Your task to perform on an android device: Do I have any events today? Image 0: 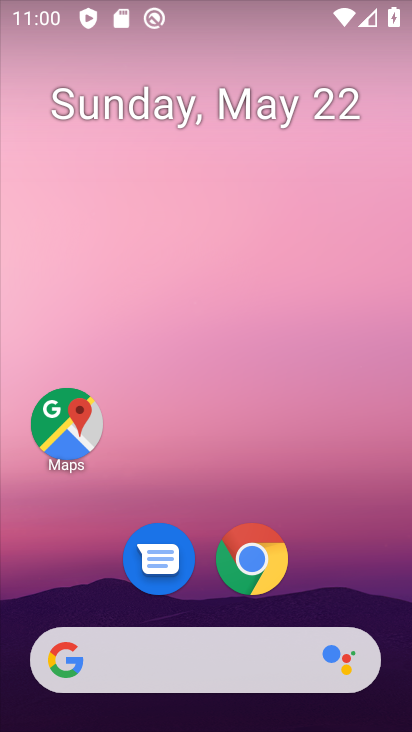
Step 0: drag from (192, 670) to (171, 150)
Your task to perform on an android device: Do I have any events today? Image 1: 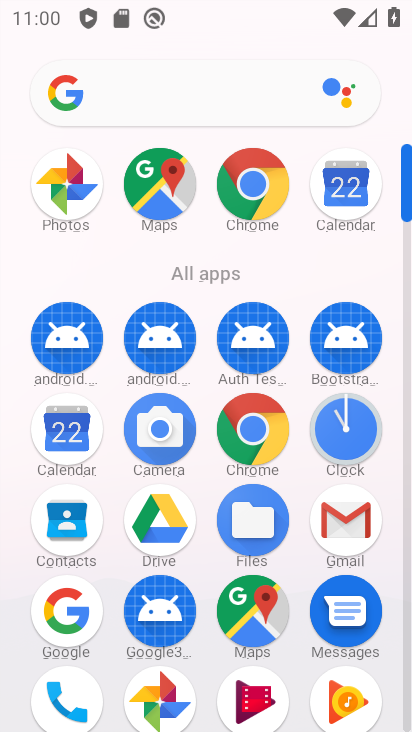
Step 1: click (82, 444)
Your task to perform on an android device: Do I have any events today? Image 2: 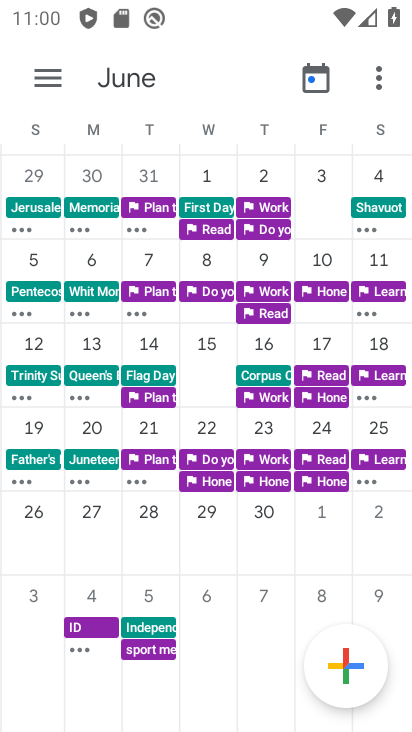
Step 2: click (36, 76)
Your task to perform on an android device: Do I have any events today? Image 3: 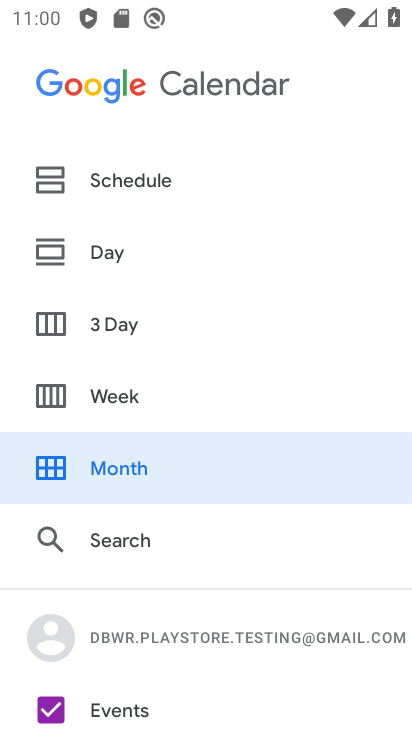
Step 3: click (110, 196)
Your task to perform on an android device: Do I have any events today? Image 4: 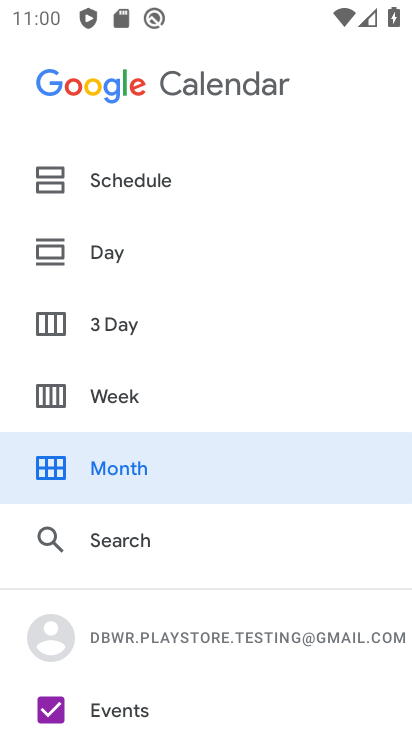
Step 4: click (113, 185)
Your task to perform on an android device: Do I have any events today? Image 5: 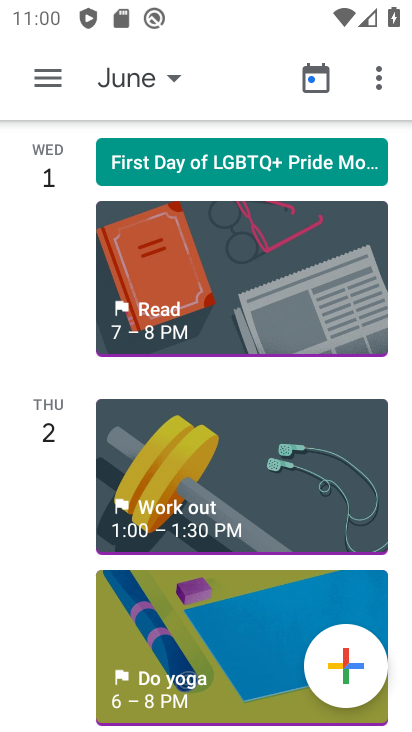
Step 5: click (150, 77)
Your task to perform on an android device: Do I have any events today? Image 6: 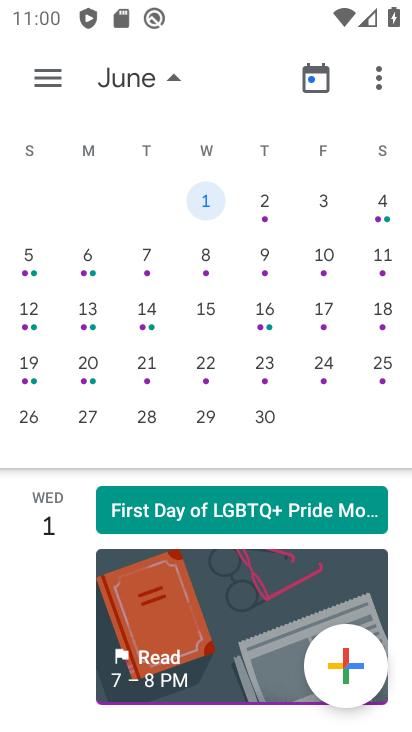
Step 6: drag from (50, 328) to (398, 268)
Your task to perform on an android device: Do I have any events today? Image 7: 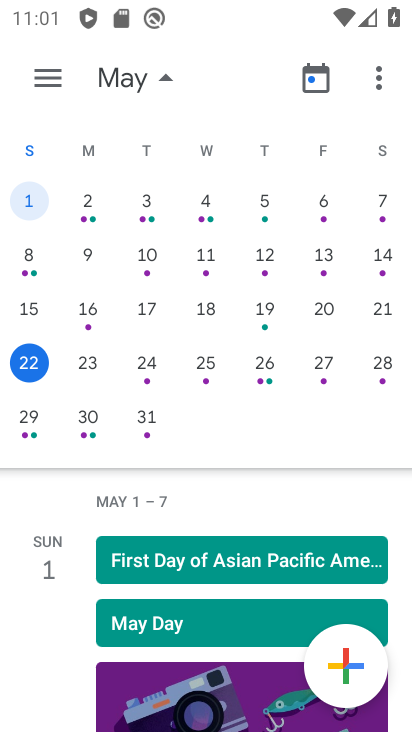
Step 7: click (16, 372)
Your task to perform on an android device: Do I have any events today? Image 8: 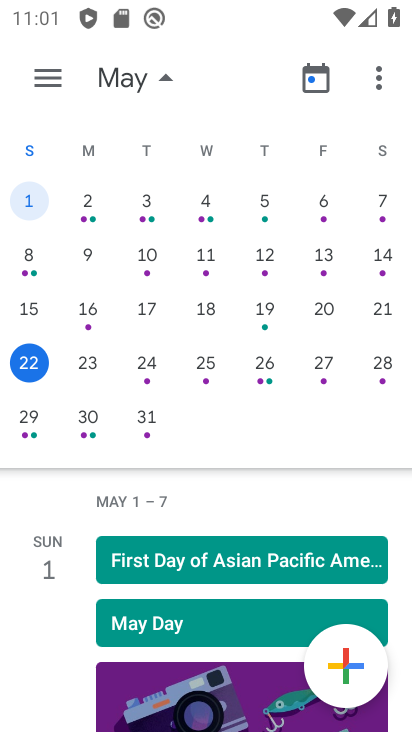
Step 8: click (25, 359)
Your task to perform on an android device: Do I have any events today? Image 9: 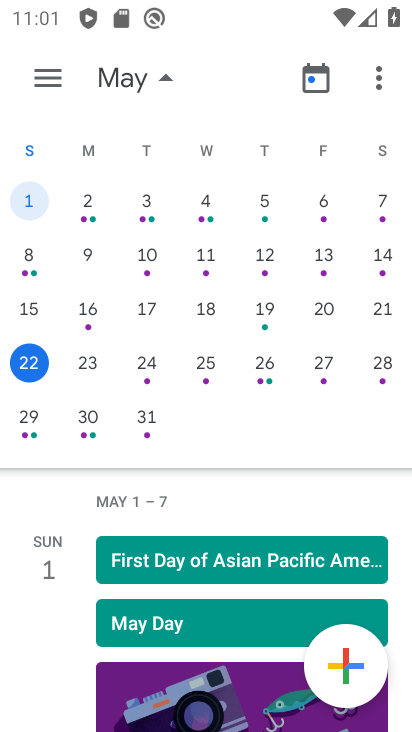
Step 9: click (160, 81)
Your task to perform on an android device: Do I have any events today? Image 10: 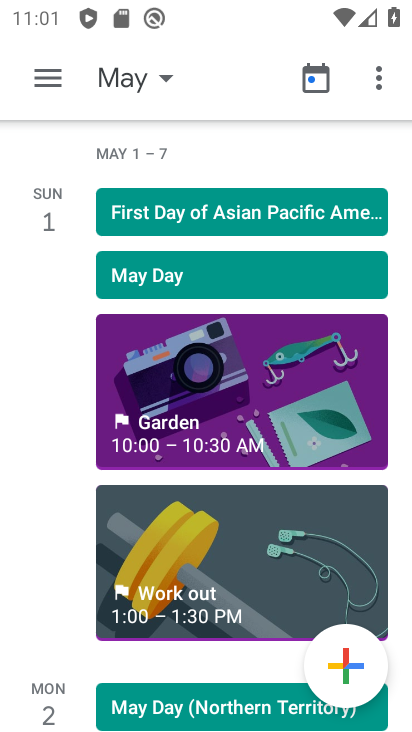
Step 10: click (168, 78)
Your task to perform on an android device: Do I have any events today? Image 11: 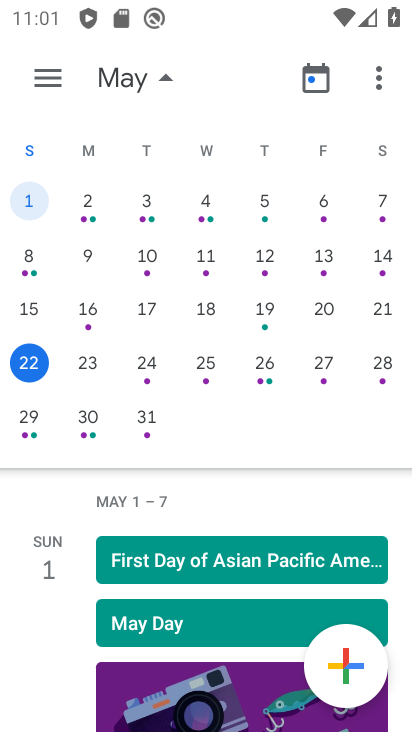
Step 11: click (38, 370)
Your task to perform on an android device: Do I have any events today? Image 12: 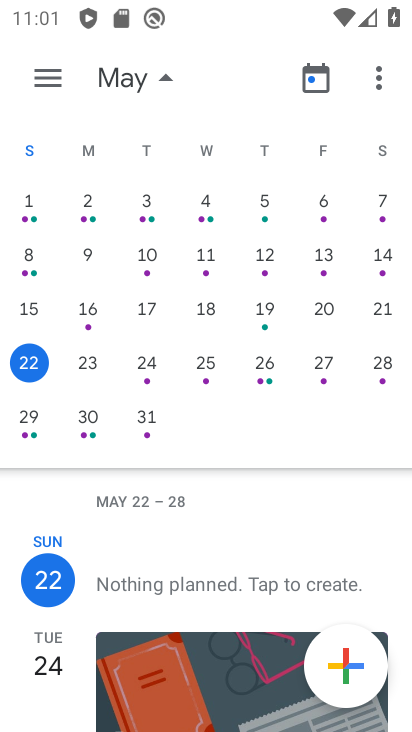
Step 12: click (155, 70)
Your task to perform on an android device: Do I have any events today? Image 13: 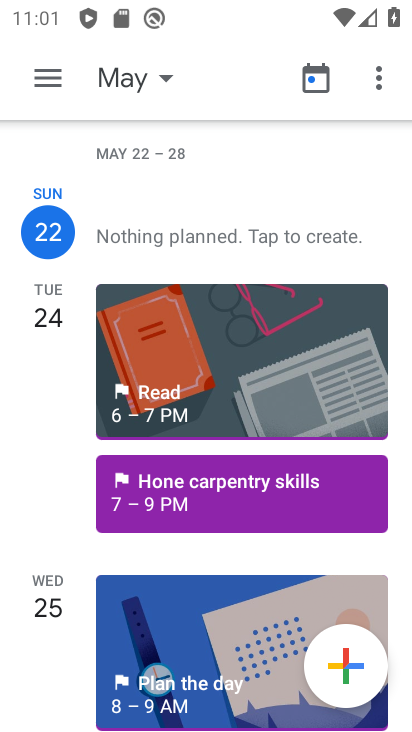
Step 13: task complete